Your task to perform on an android device: open the mobile data screen to see how much data has been used Image 0: 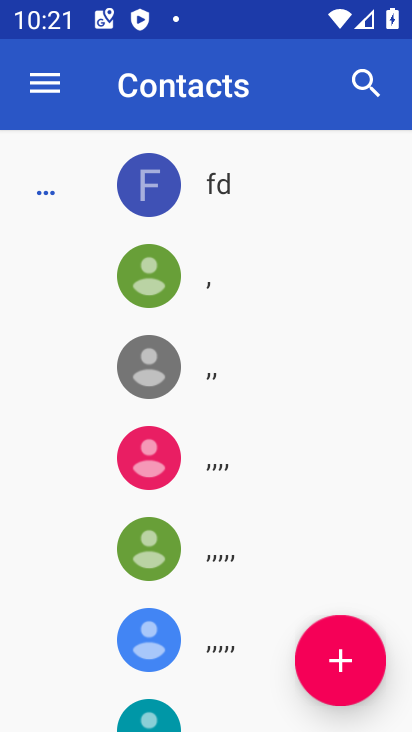
Step 0: press home button
Your task to perform on an android device: open the mobile data screen to see how much data has been used Image 1: 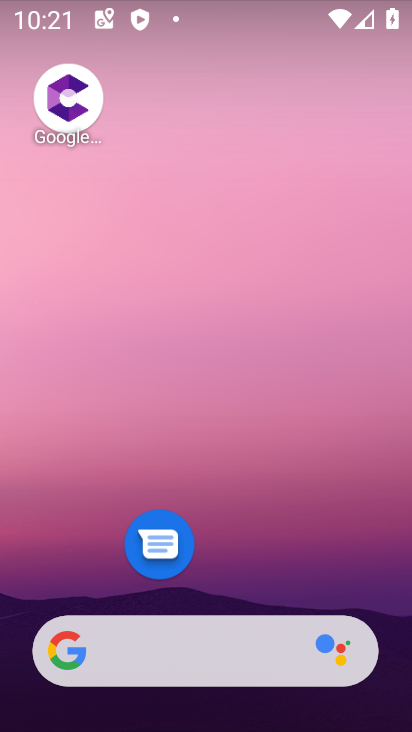
Step 1: drag from (300, 476) to (292, 81)
Your task to perform on an android device: open the mobile data screen to see how much data has been used Image 2: 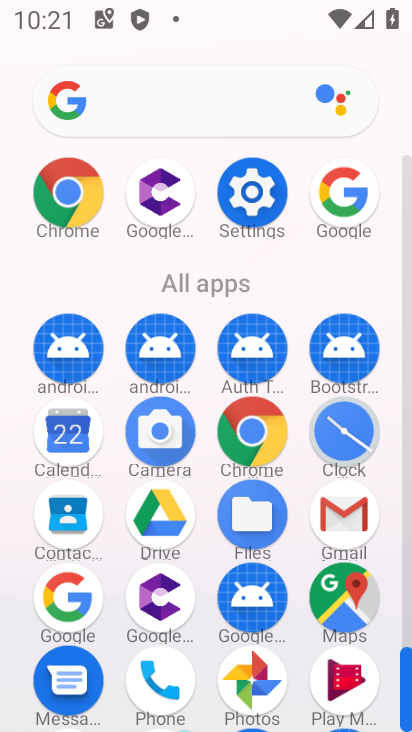
Step 2: click (244, 175)
Your task to perform on an android device: open the mobile data screen to see how much data has been used Image 3: 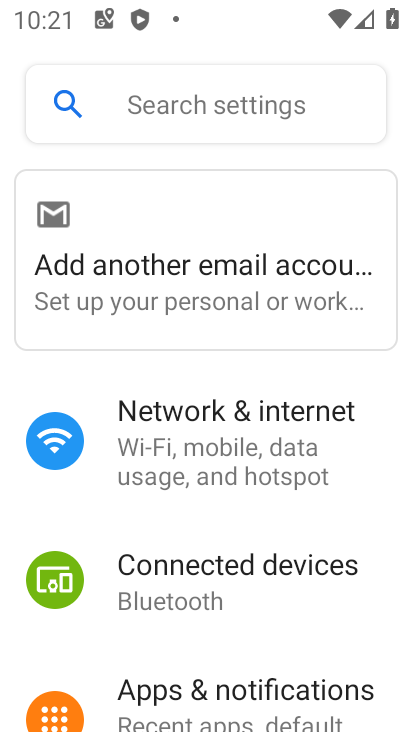
Step 3: click (235, 447)
Your task to perform on an android device: open the mobile data screen to see how much data has been used Image 4: 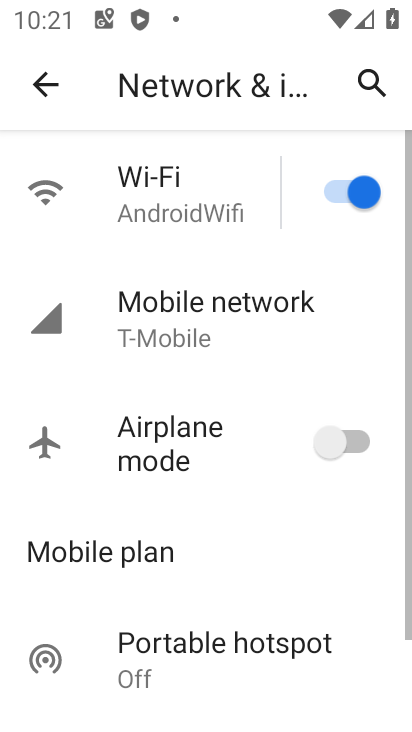
Step 4: click (154, 319)
Your task to perform on an android device: open the mobile data screen to see how much data has been used Image 5: 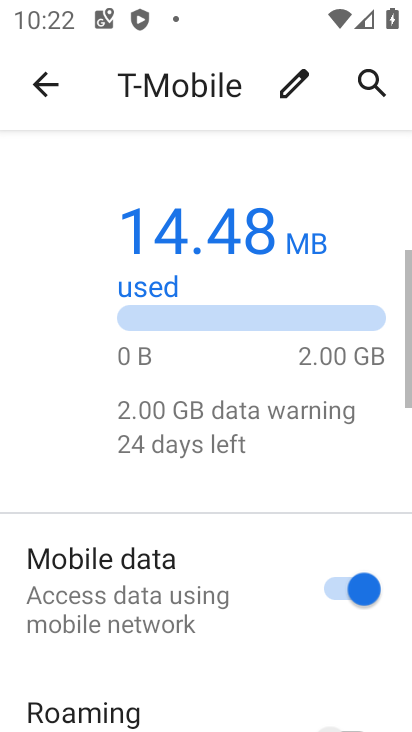
Step 5: task complete